Your task to perform on an android device: Open Google Chrome Image 0: 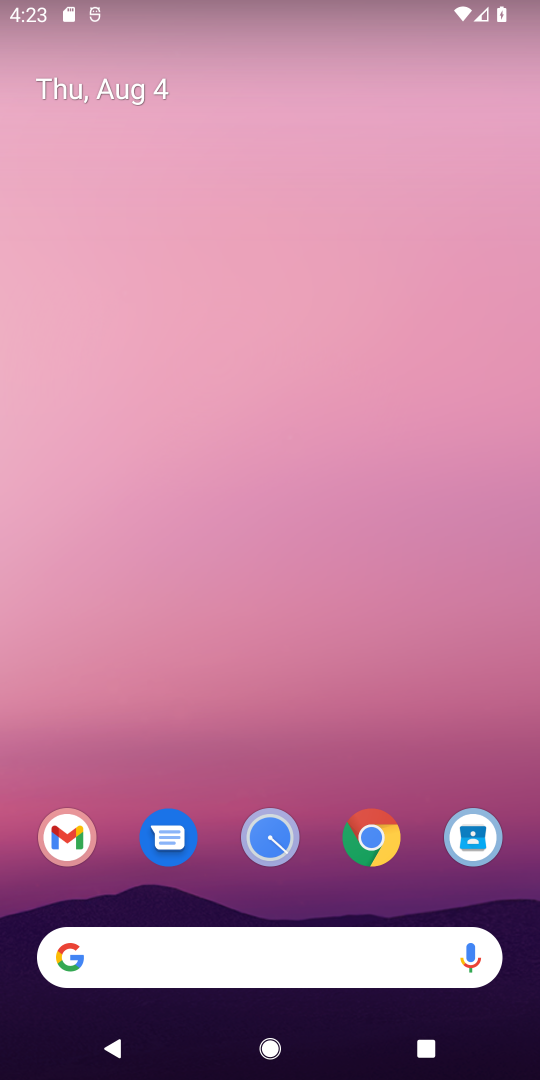
Step 0: click (364, 839)
Your task to perform on an android device: Open Google Chrome Image 1: 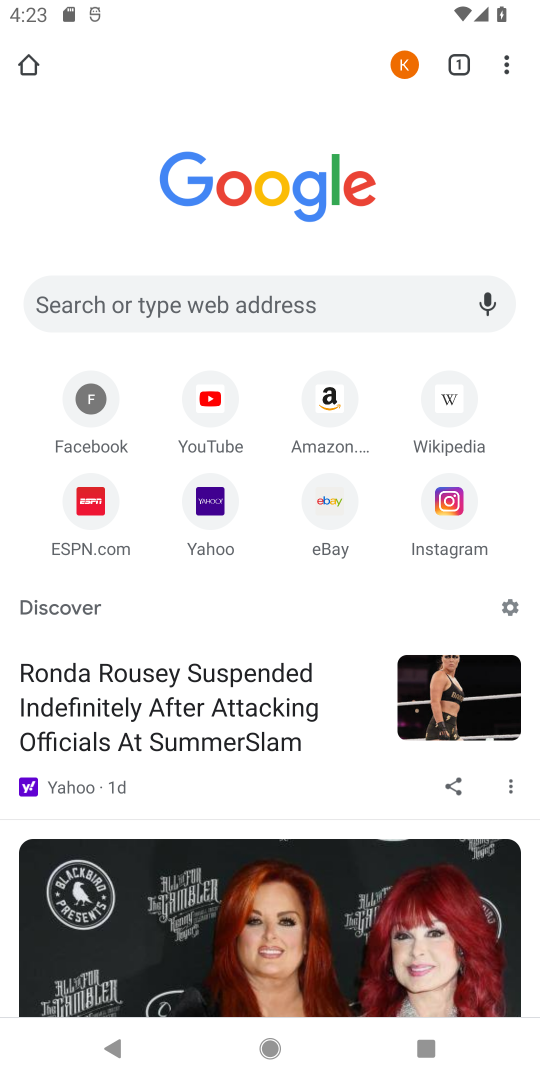
Step 1: task complete